Your task to perform on an android device: change your default location settings in chrome Image 0: 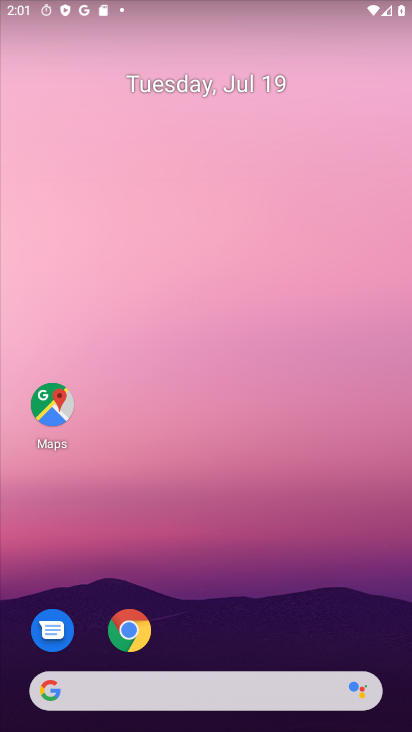
Step 0: click (116, 639)
Your task to perform on an android device: change your default location settings in chrome Image 1: 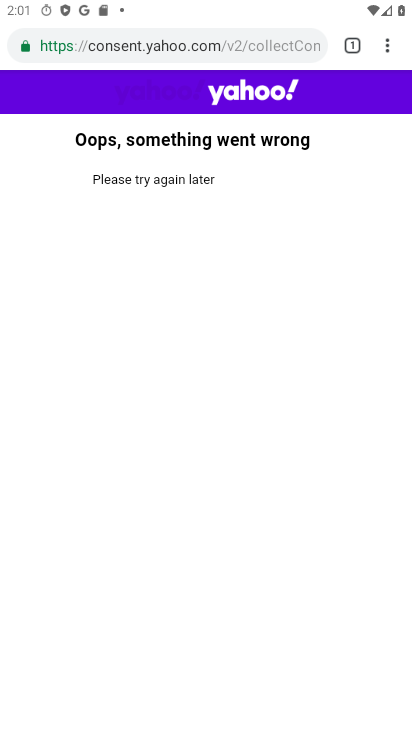
Step 1: click (377, 46)
Your task to perform on an android device: change your default location settings in chrome Image 2: 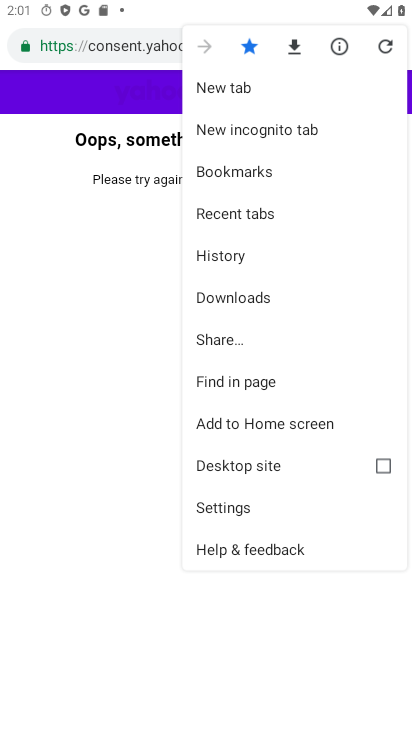
Step 2: click (293, 509)
Your task to perform on an android device: change your default location settings in chrome Image 3: 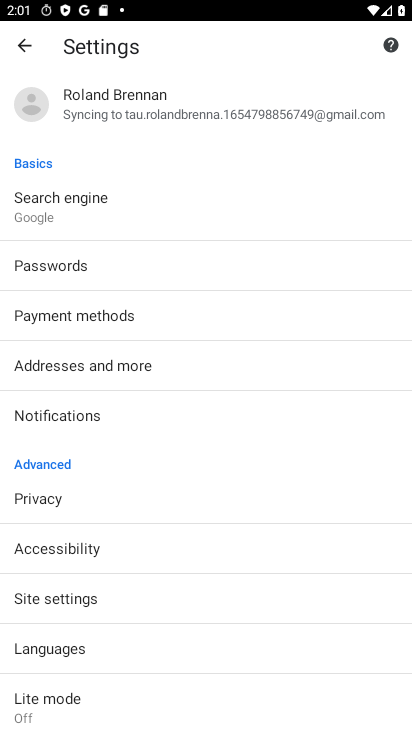
Step 3: click (41, 593)
Your task to perform on an android device: change your default location settings in chrome Image 4: 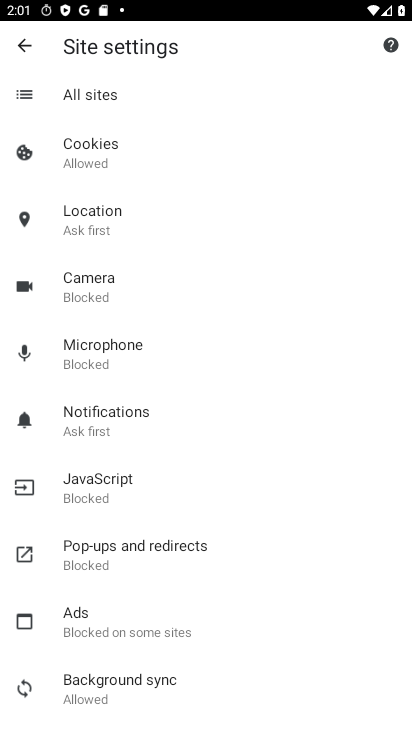
Step 4: click (107, 224)
Your task to perform on an android device: change your default location settings in chrome Image 5: 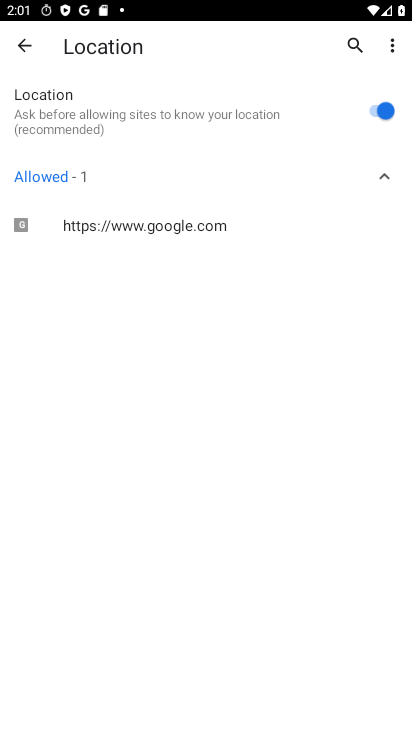
Step 5: click (389, 110)
Your task to perform on an android device: change your default location settings in chrome Image 6: 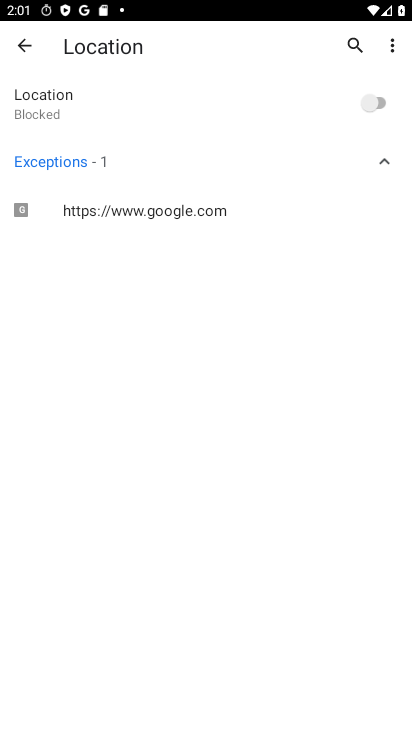
Step 6: task complete